Your task to perform on an android device: turn on location history Image 0: 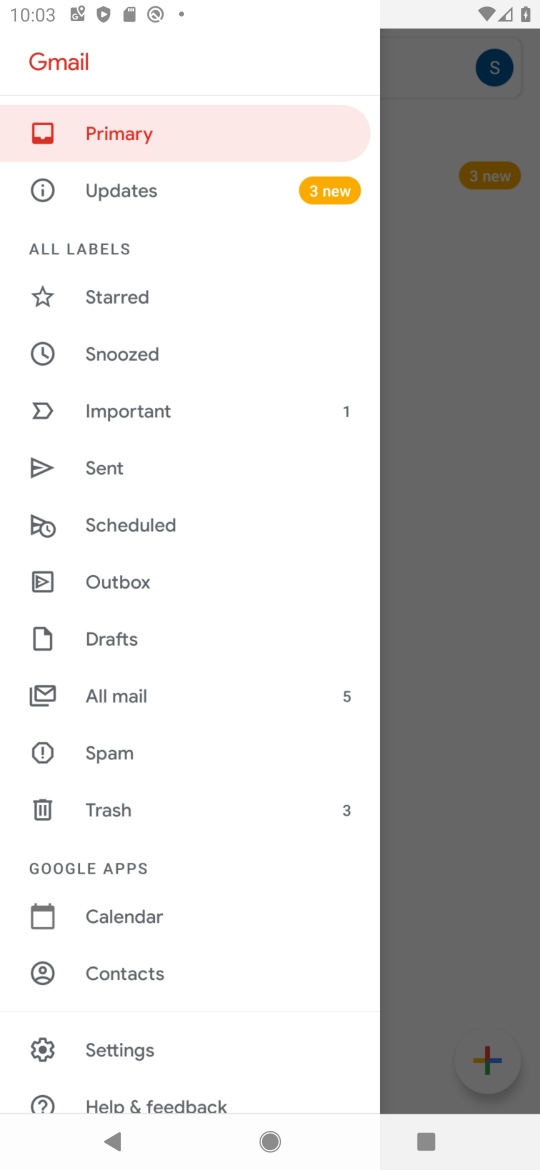
Step 0: press home button
Your task to perform on an android device: turn on location history Image 1: 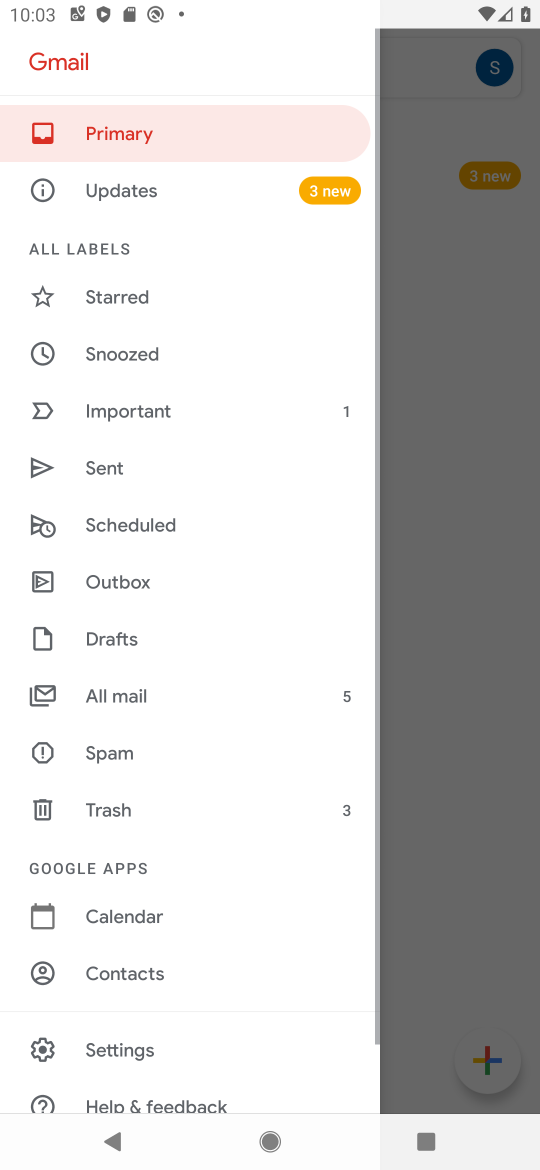
Step 1: press home button
Your task to perform on an android device: turn on location history Image 2: 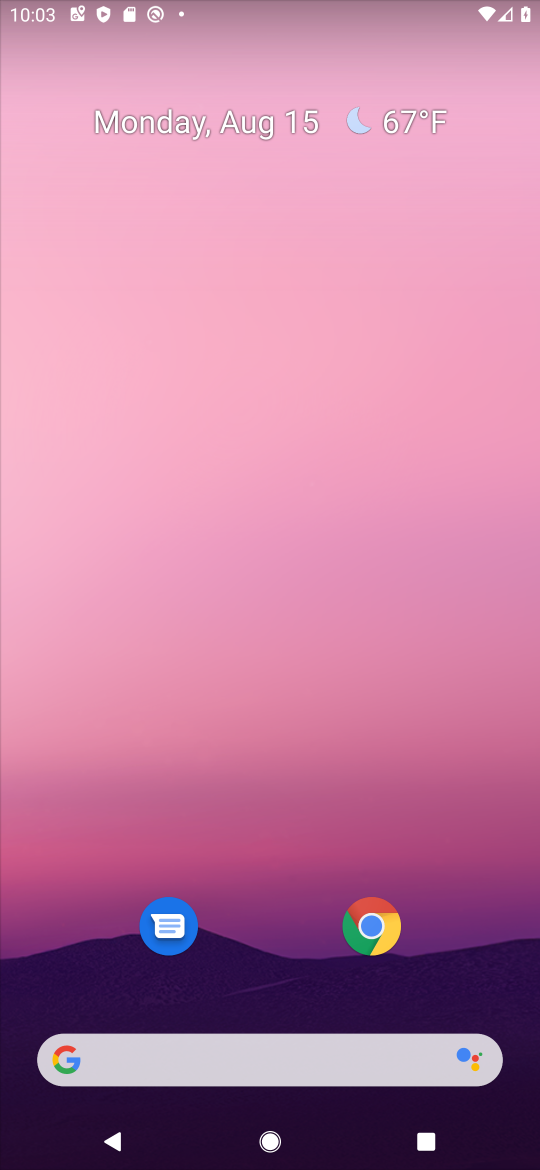
Step 2: drag from (266, 551) to (283, 156)
Your task to perform on an android device: turn on location history Image 3: 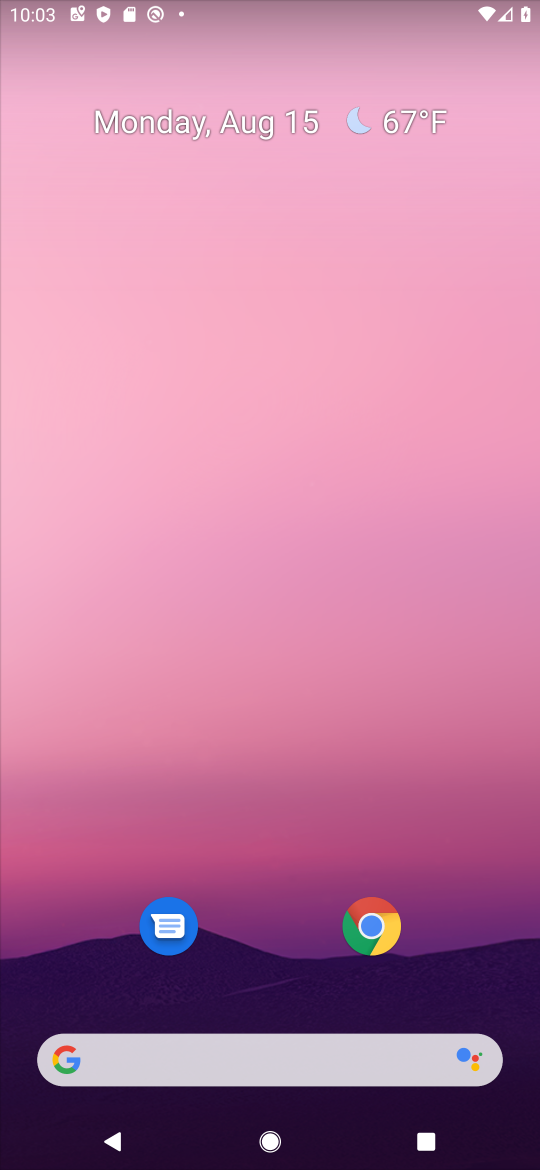
Step 3: drag from (270, 959) to (291, 86)
Your task to perform on an android device: turn on location history Image 4: 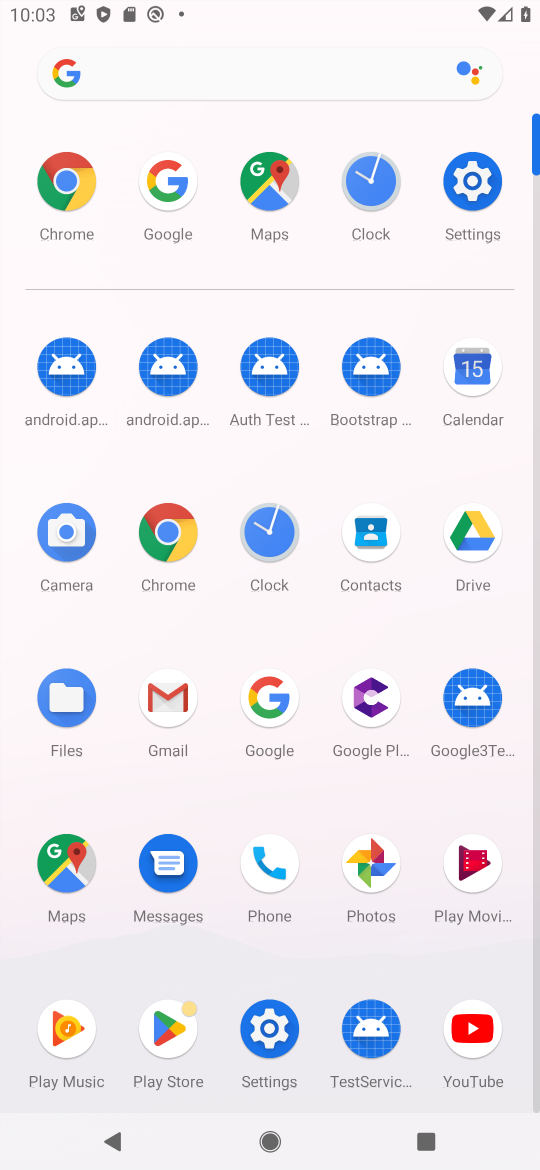
Step 4: click (263, 219)
Your task to perform on an android device: turn on location history Image 5: 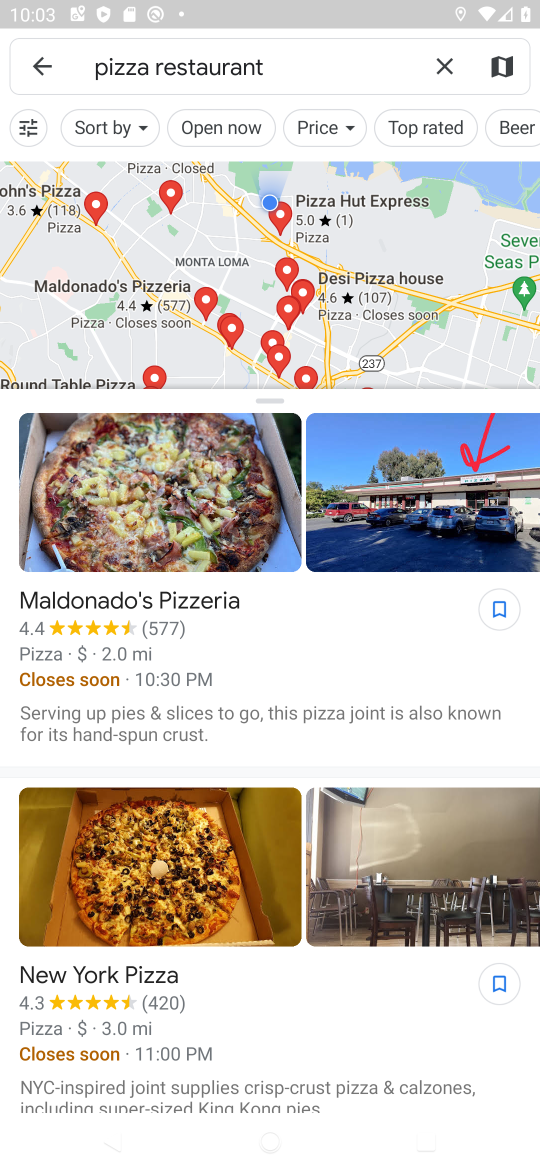
Step 5: click (33, 69)
Your task to perform on an android device: turn on location history Image 6: 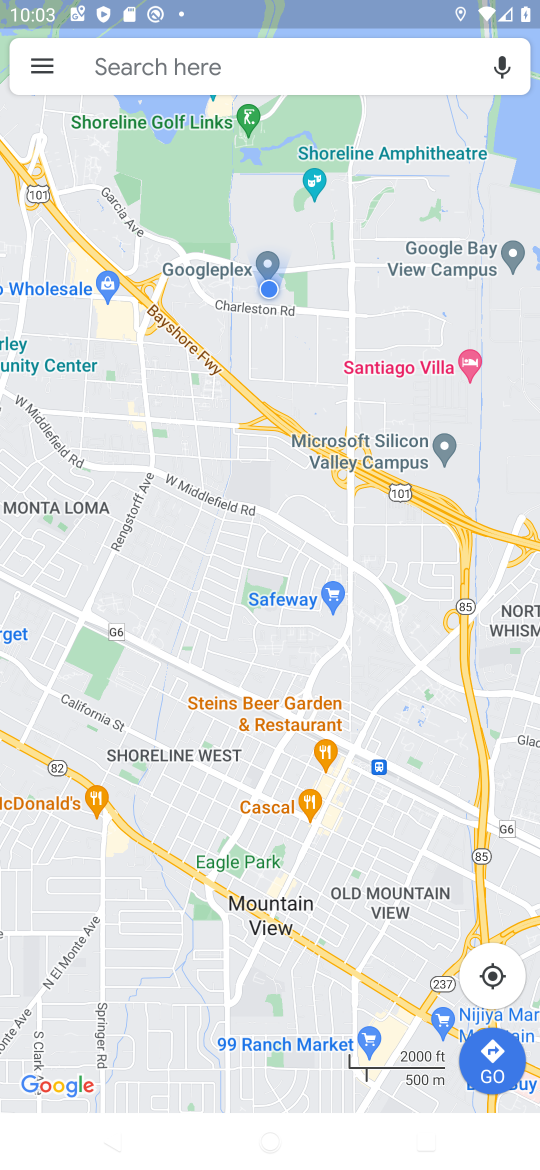
Step 6: click (33, 69)
Your task to perform on an android device: turn on location history Image 7: 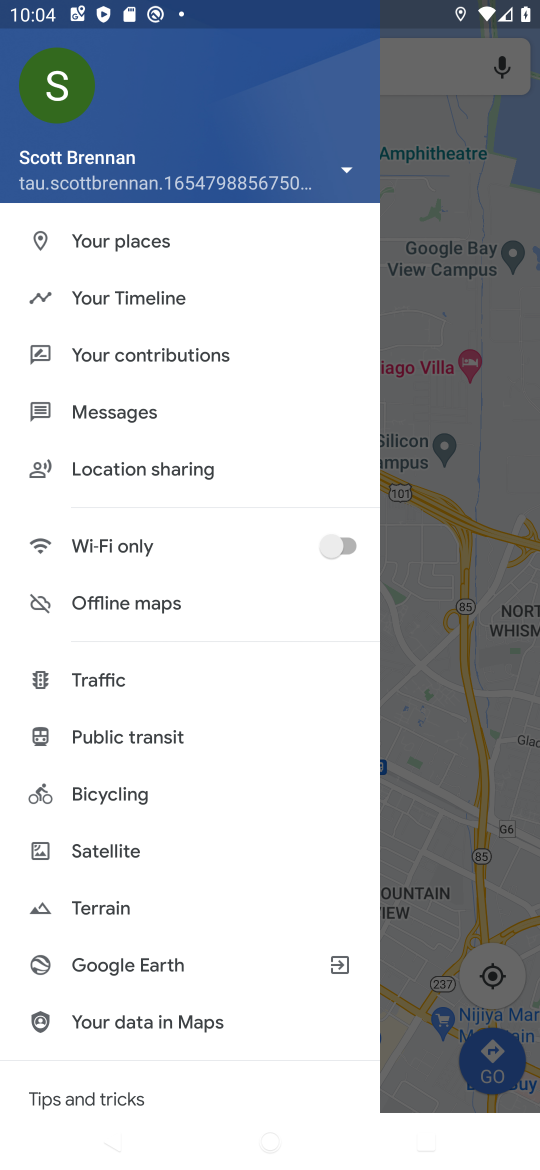
Step 7: click (105, 309)
Your task to perform on an android device: turn on location history Image 8: 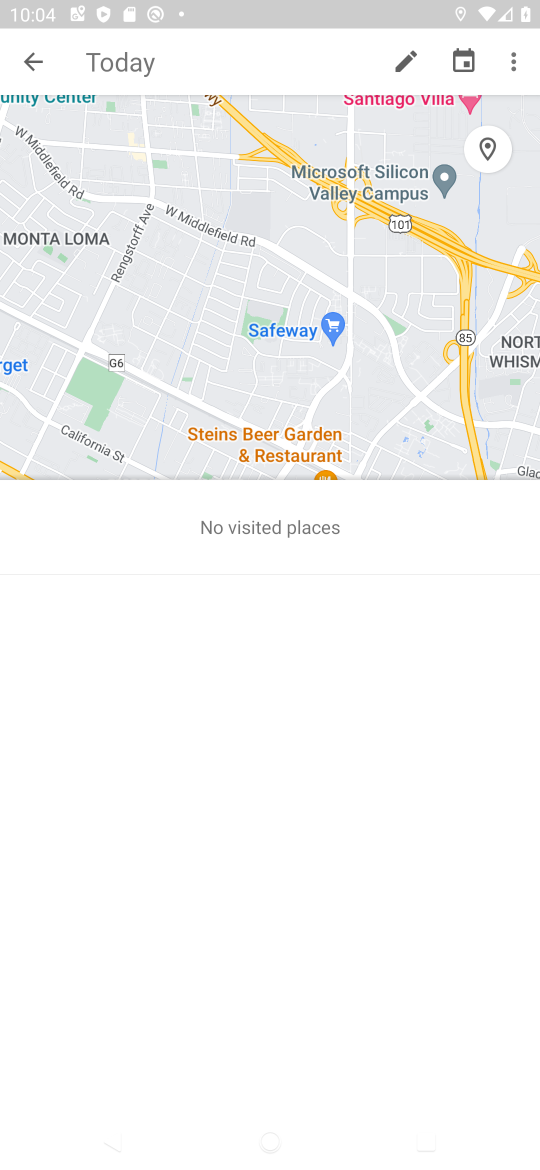
Step 8: click (522, 67)
Your task to perform on an android device: turn on location history Image 9: 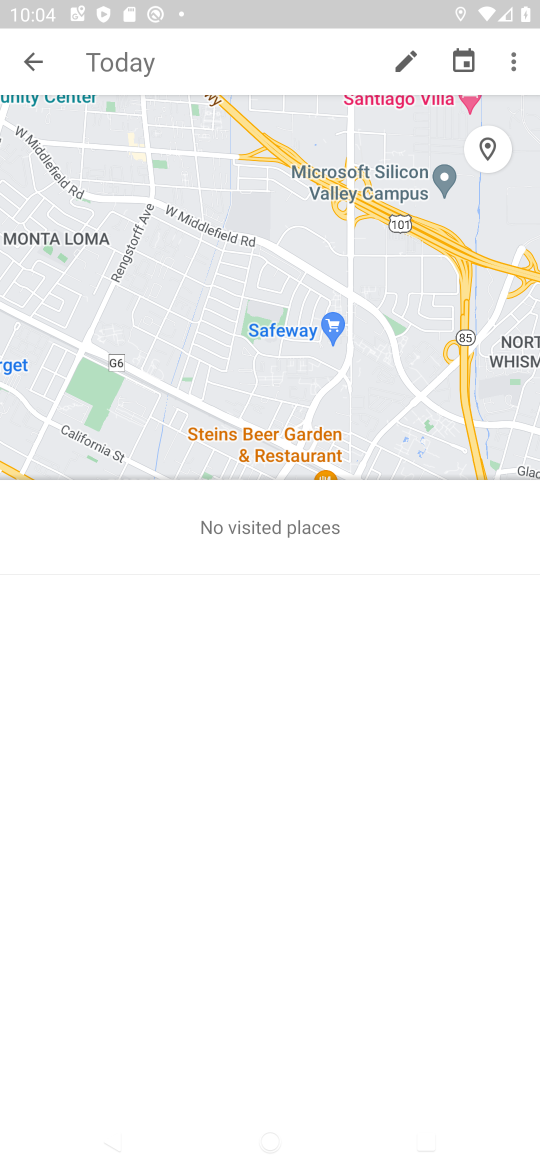
Step 9: click (508, 67)
Your task to perform on an android device: turn on location history Image 10: 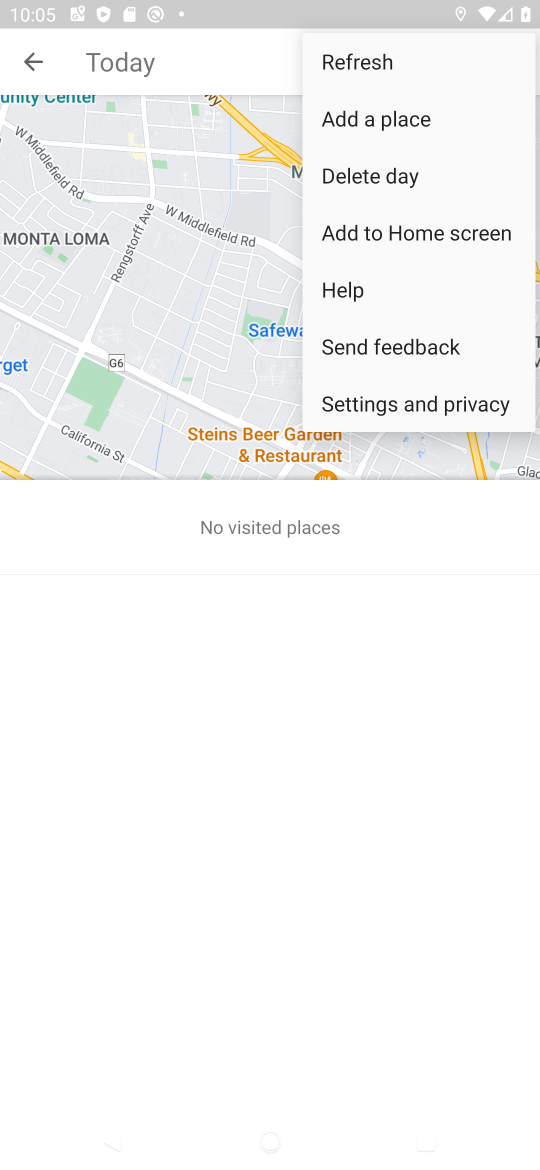
Step 10: click (383, 404)
Your task to perform on an android device: turn on location history Image 11: 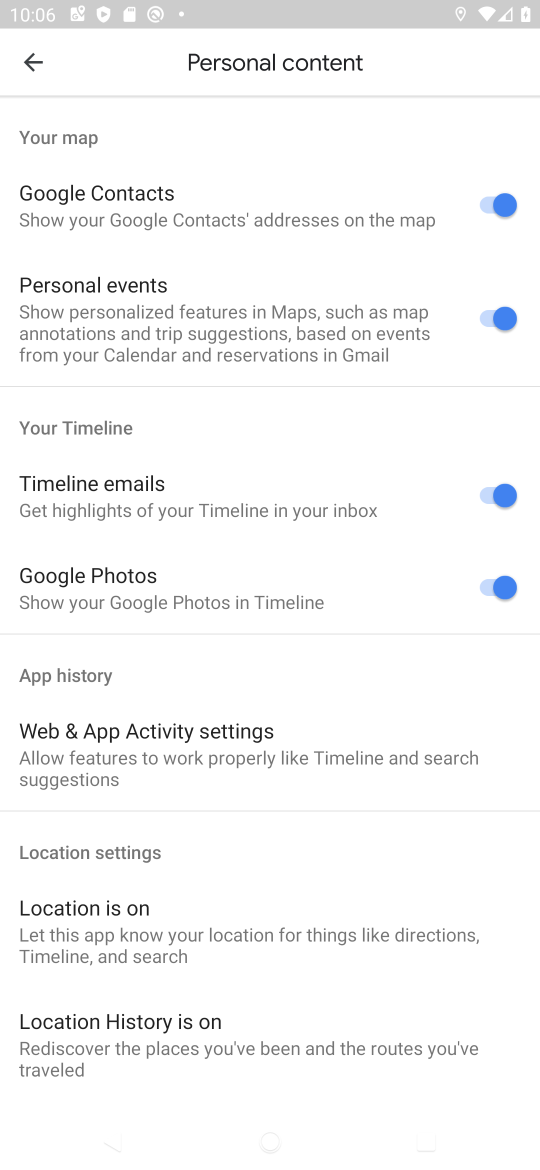
Step 11: click (189, 1031)
Your task to perform on an android device: turn on location history Image 12: 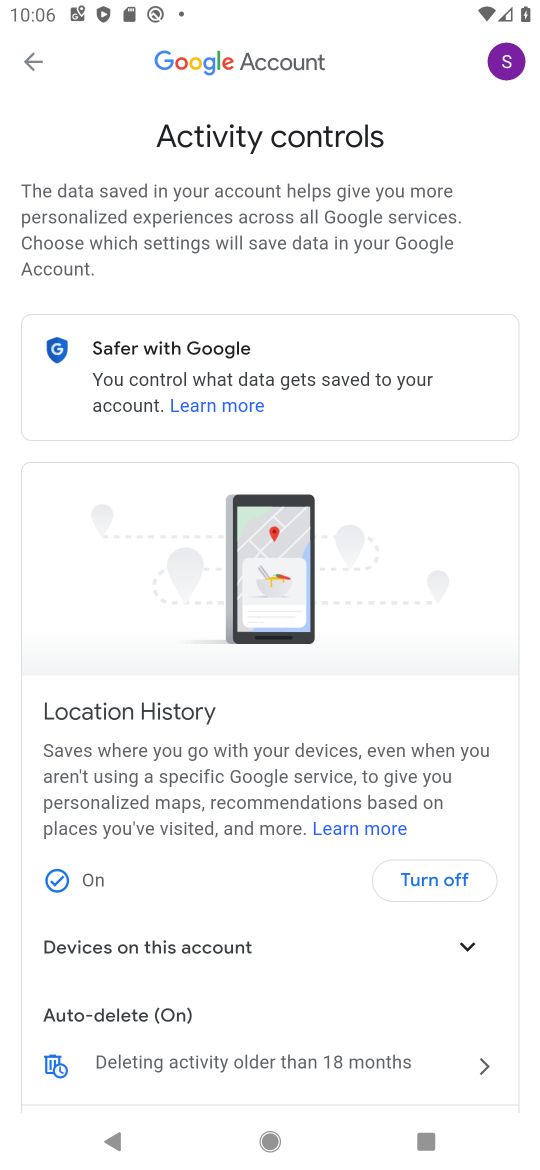
Step 12: task complete